Your task to perform on an android device: Open Youtube and go to the subscriptions tab Image 0: 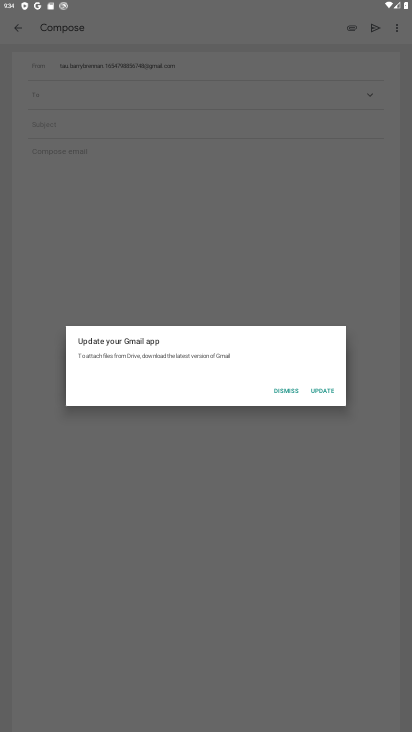
Step 0: press home button
Your task to perform on an android device: Open Youtube and go to the subscriptions tab Image 1: 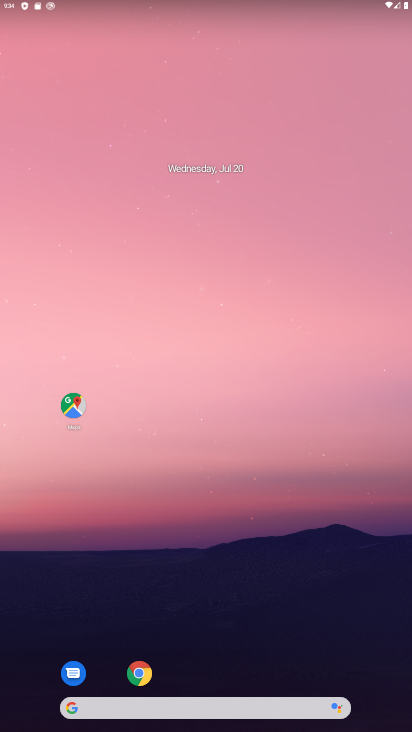
Step 1: drag from (332, 664) to (329, 4)
Your task to perform on an android device: Open Youtube and go to the subscriptions tab Image 2: 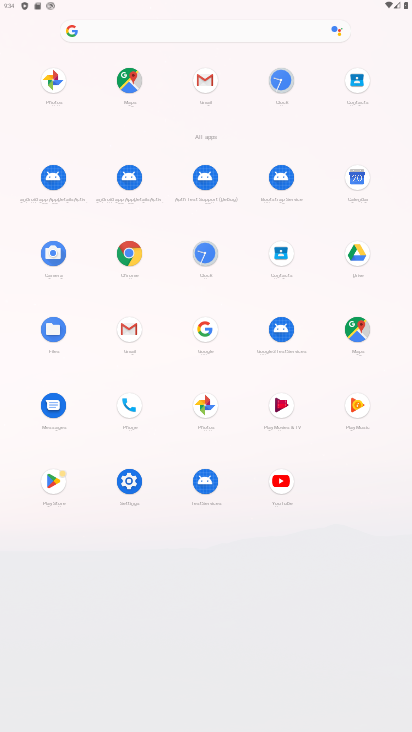
Step 2: click (277, 483)
Your task to perform on an android device: Open Youtube and go to the subscriptions tab Image 3: 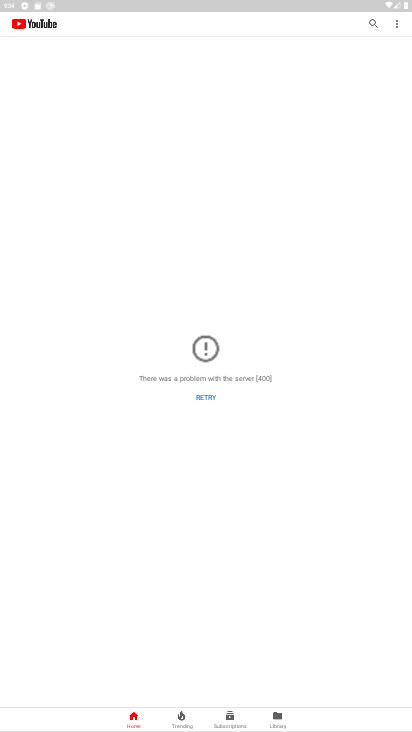
Step 3: click (230, 718)
Your task to perform on an android device: Open Youtube and go to the subscriptions tab Image 4: 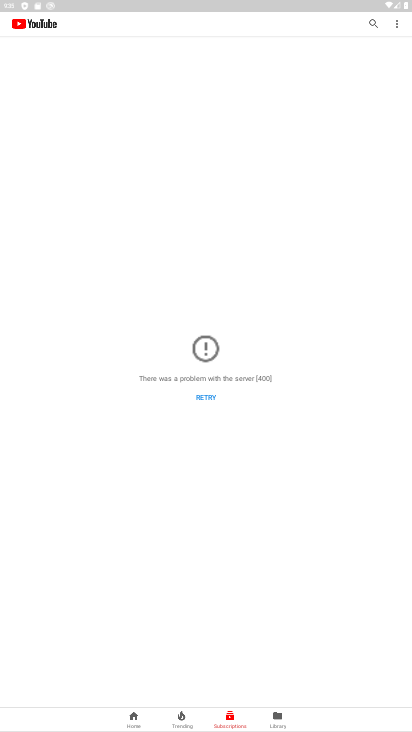
Step 4: task complete